Your task to perform on an android device: Search for seafood restaurants on Google Maps Image 0: 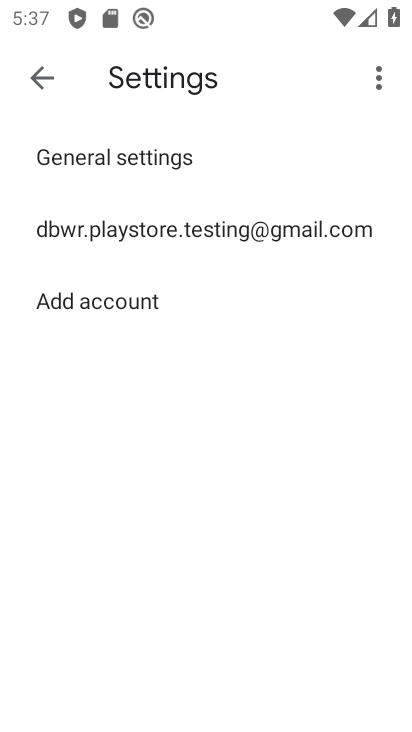
Step 0: press home button
Your task to perform on an android device: Search for seafood restaurants on Google Maps Image 1: 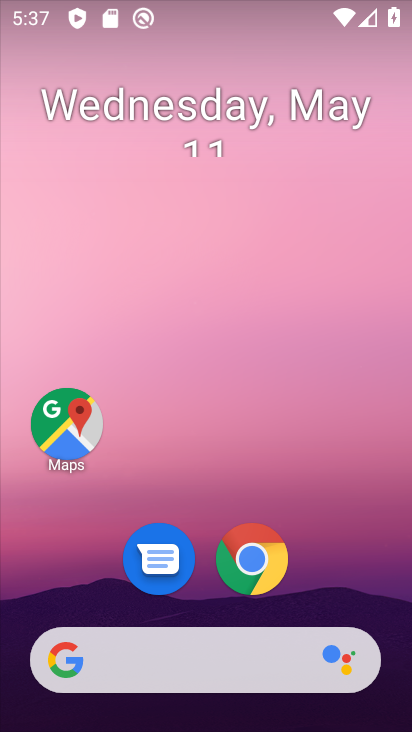
Step 1: click (242, 565)
Your task to perform on an android device: Search for seafood restaurants on Google Maps Image 2: 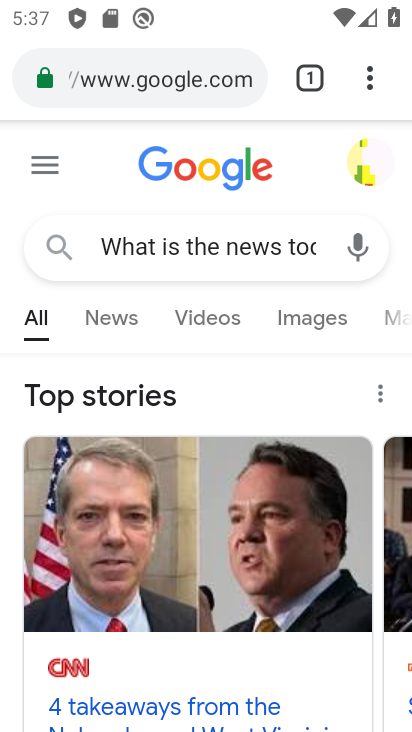
Step 2: click (203, 90)
Your task to perform on an android device: Search for seafood restaurants on Google Maps Image 3: 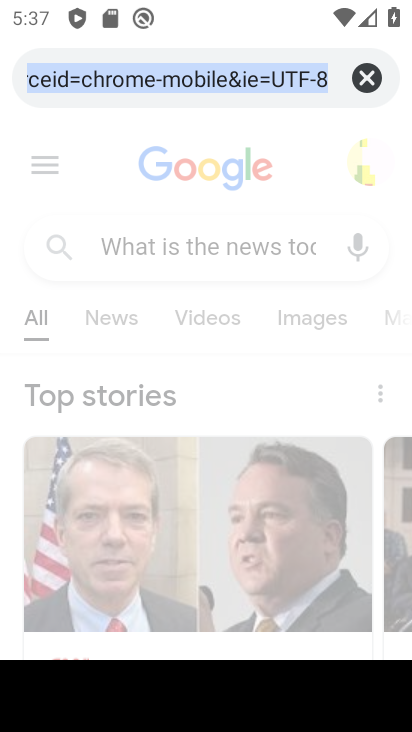
Step 3: click (370, 70)
Your task to perform on an android device: Search for seafood restaurants on Google Maps Image 4: 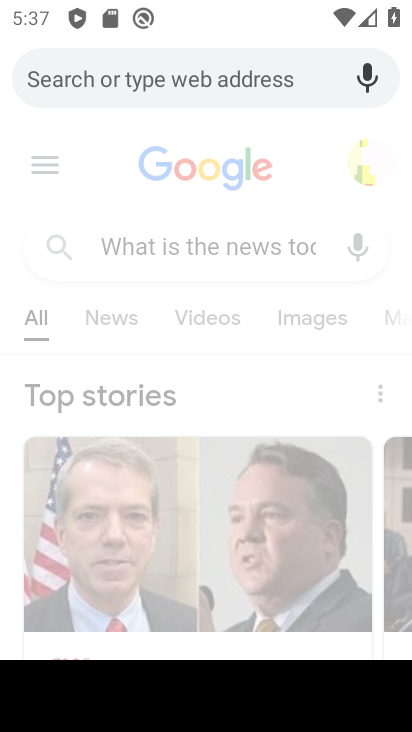
Step 4: type " seafood restaurants "
Your task to perform on an android device: Search for seafood restaurants on Google Maps Image 5: 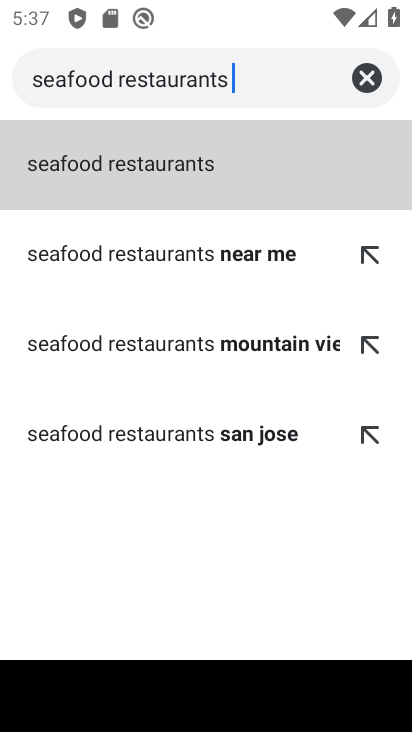
Step 5: click (108, 167)
Your task to perform on an android device: Search for seafood restaurants on Google Maps Image 6: 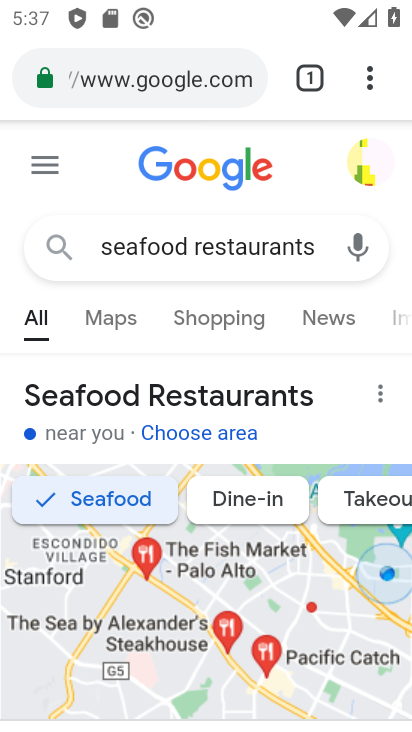
Step 6: task complete